Your task to perform on an android device: What's on my calendar tomorrow? Image 0: 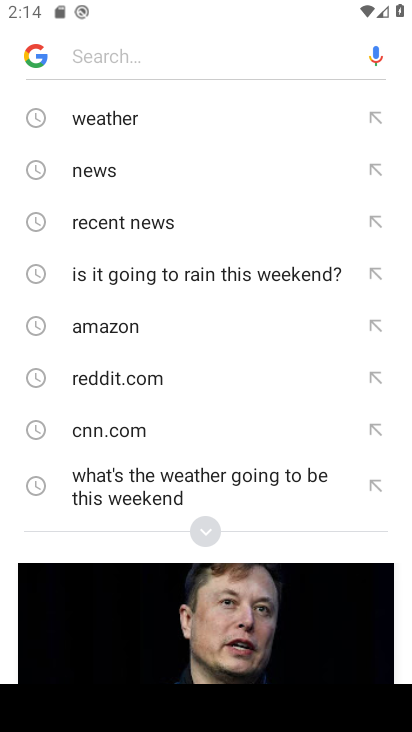
Step 0: press home button
Your task to perform on an android device: What's on my calendar tomorrow? Image 1: 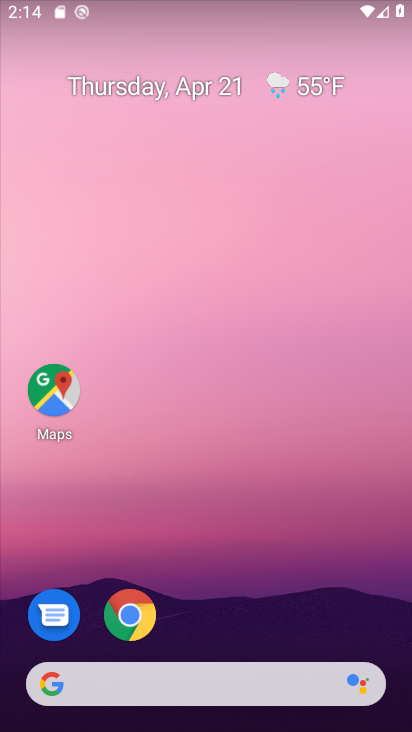
Step 1: drag from (200, 627) to (331, 30)
Your task to perform on an android device: What's on my calendar tomorrow? Image 2: 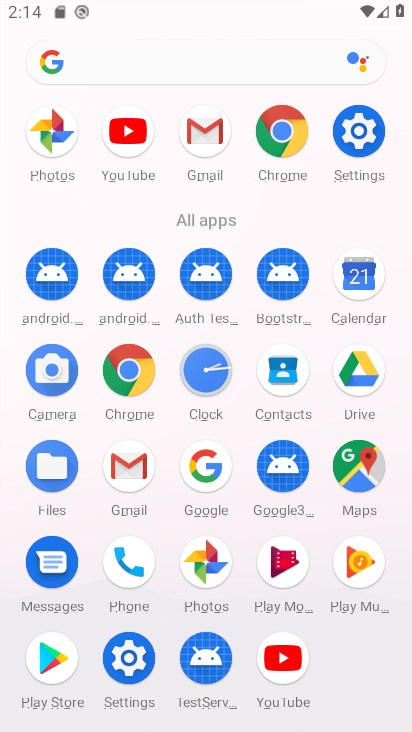
Step 2: click (360, 270)
Your task to perform on an android device: What's on my calendar tomorrow? Image 3: 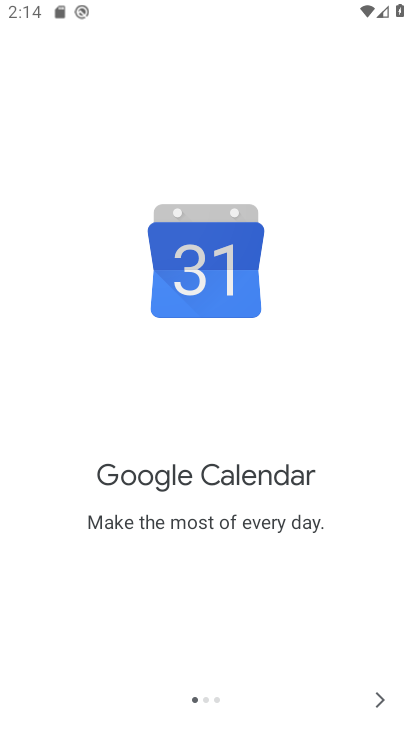
Step 3: click (377, 706)
Your task to perform on an android device: What's on my calendar tomorrow? Image 4: 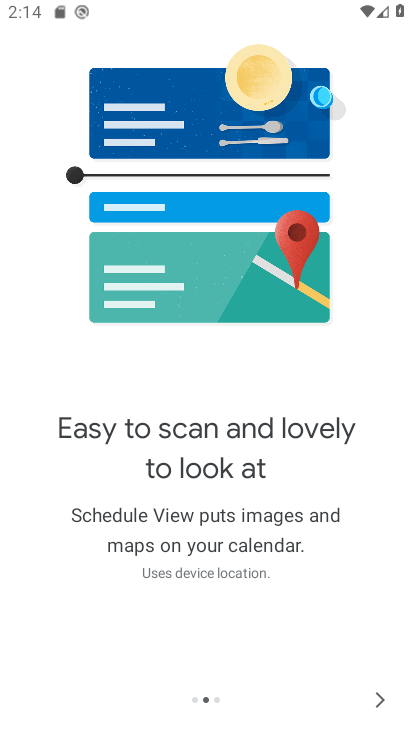
Step 4: click (370, 710)
Your task to perform on an android device: What's on my calendar tomorrow? Image 5: 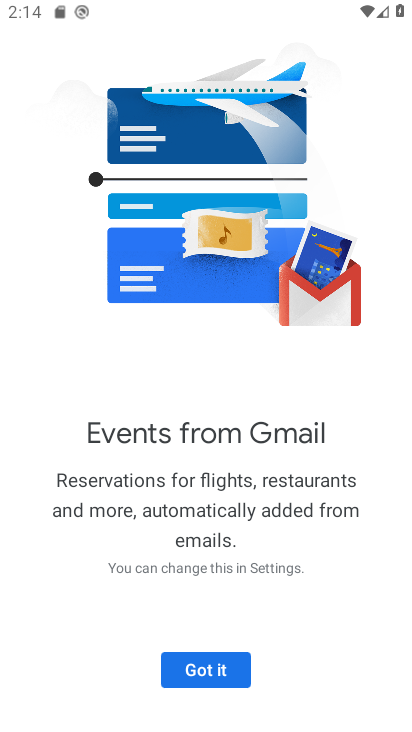
Step 5: click (205, 663)
Your task to perform on an android device: What's on my calendar tomorrow? Image 6: 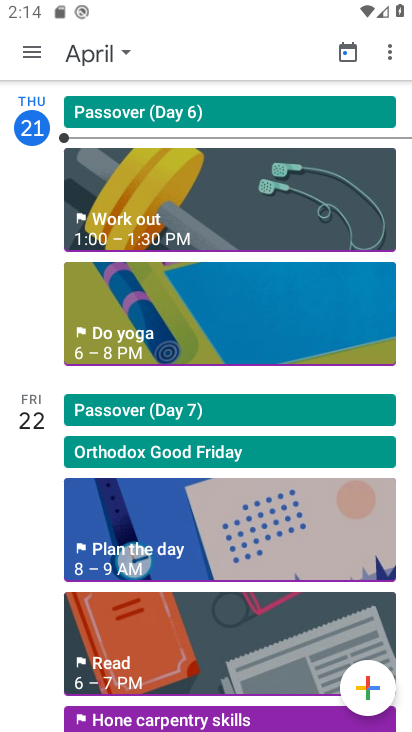
Step 6: click (31, 50)
Your task to perform on an android device: What's on my calendar tomorrow? Image 7: 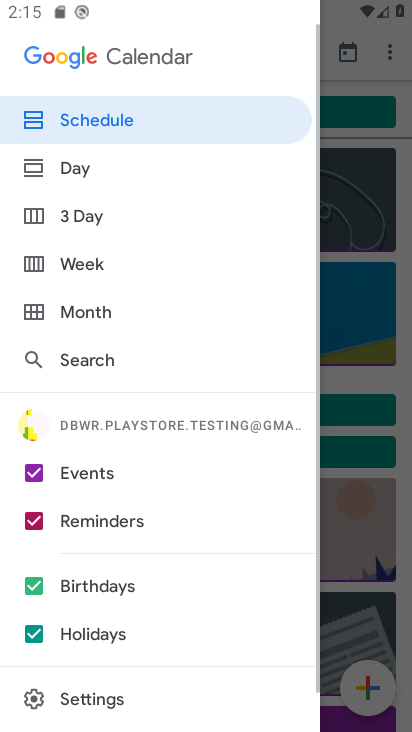
Step 7: click (77, 212)
Your task to perform on an android device: What's on my calendar tomorrow? Image 8: 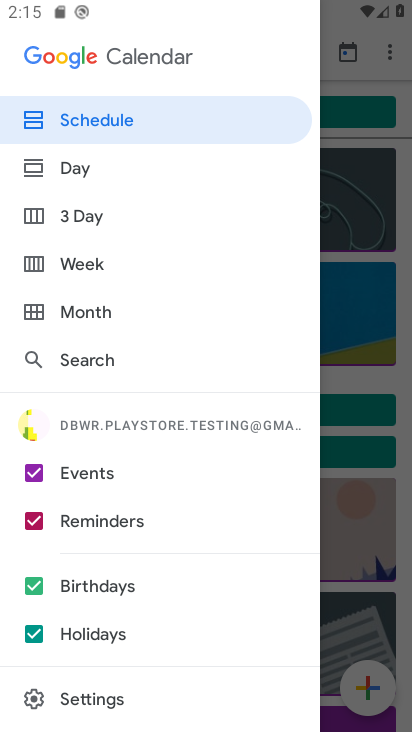
Step 8: click (98, 219)
Your task to perform on an android device: What's on my calendar tomorrow? Image 9: 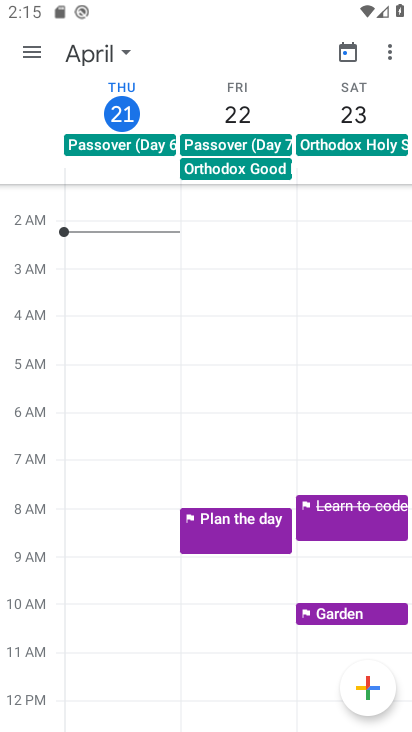
Step 9: task complete